Your task to perform on an android device: Open Youtube and go to the subscriptions tab Image 0: 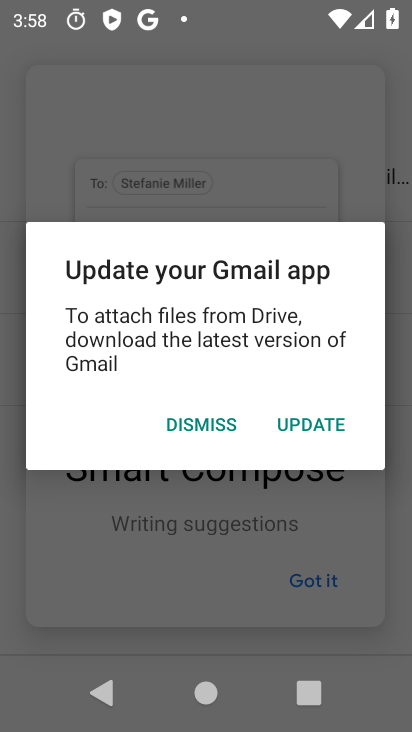
Step 0: press home button
Your task to perform on an android device: Open Youtube and go to the subscriptions tab Image 1: 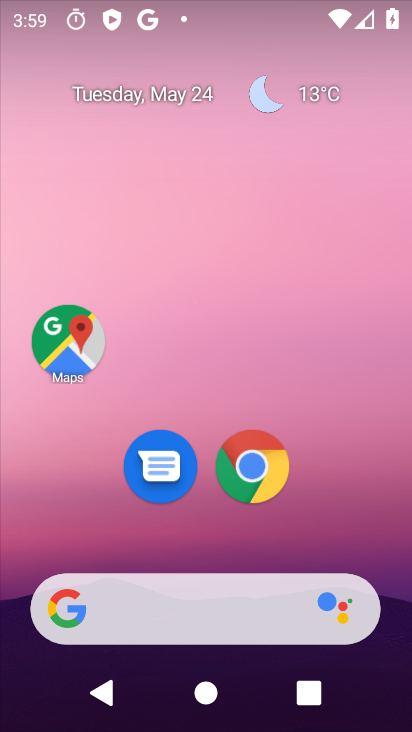
Step 1: drag from (323, 506) to (280, 110)
Your task to perform on an android device: Open Youtube and go to the subscriptions tab Image 2: 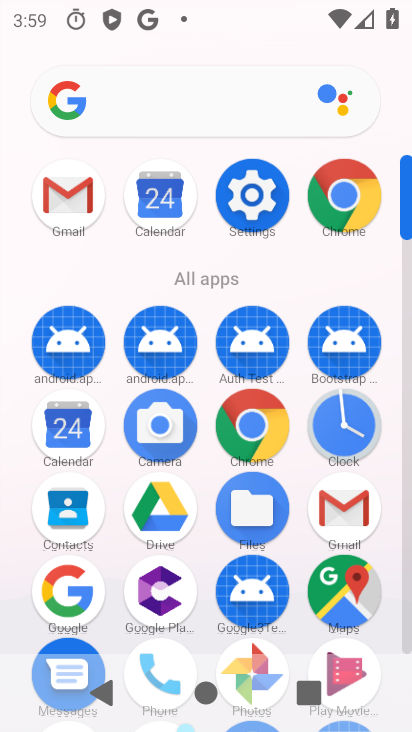
Step 2: drag from (211, 607) to (200, 122)
Your task to perform on an android device: Open Youtube and go to the subscriptions tab Image 3: 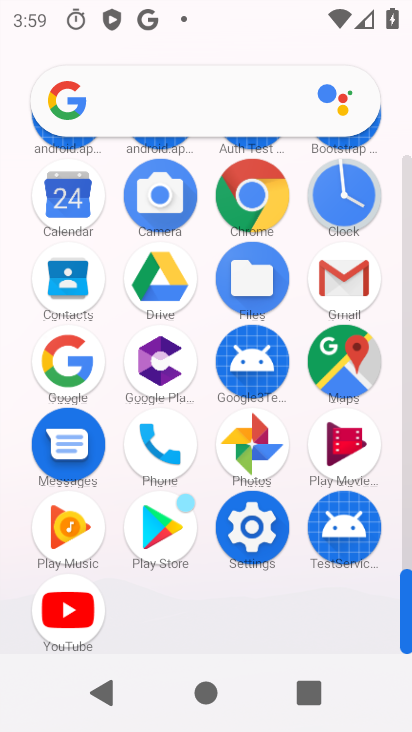
Step 3: click (58, 584)
Your task to perform on an android device: Open Youtube and go to the subscriptions tab Image 4: 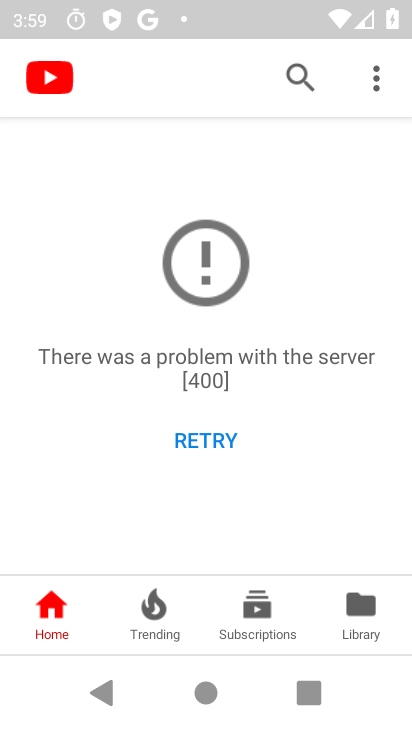
Step 4: click (188, 436)
Your task to perform on an android device: Open Youtube and go to the subscriptions tab Image 5: 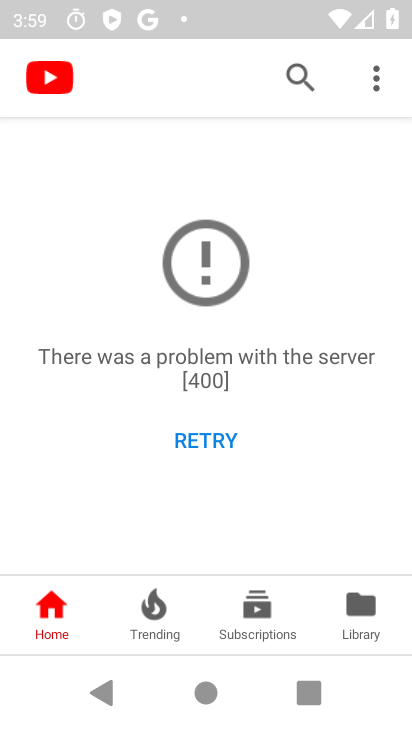
Step 5: task complete